Your task to perform on an android device: View the shopping cart on costco.com. Add "alienware aurora" to the cart on costco.com, then select checkout. Image 0: 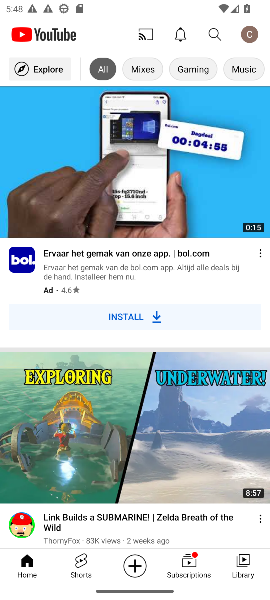
Step 0: press home button
Your task to perform on an android device: View the shopping cart on costco.com. Add "alienware aurora" to the cart on costco.com, then select checkout. Image 1: 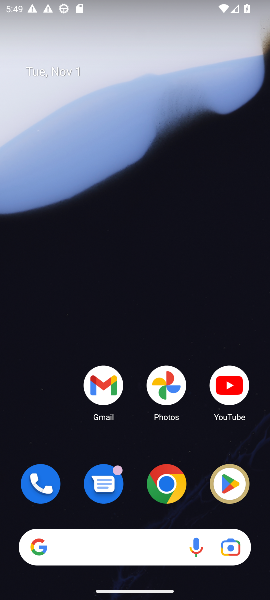
Step 1: click (163, 477)
Your task to perform on an android device: View the shopping cart on costco.com. Add "alienware aurora" to the cart on costco.com, then select checkout. Image 2: 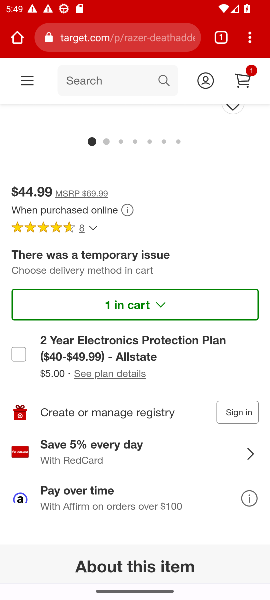
Step 2: click (130, 35)
Your task to perform on an android device: View the shopping cart on costco.com. Add "alienware aurora" to the cart on costco.com, then select checkout. Image 3: 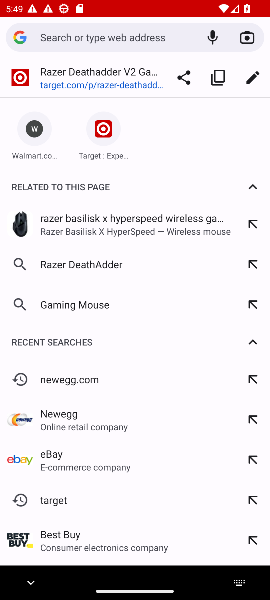
Step 3: type "costco.com"
Your task to perform on an android device: View the shopping cart on costco.com. Add "alienware aurora" to the cart on costco.com, then select checkout. Image 4: 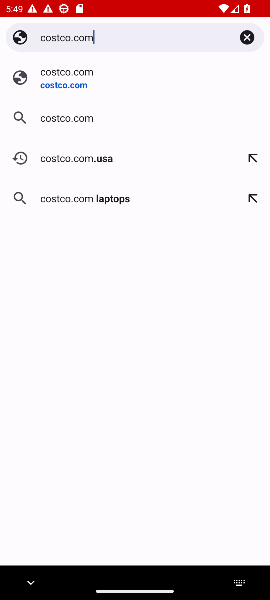
Step 4: click (63, 75)
Your task to perform on an android device: View the shopping cart on costco.com. Add "alienware aurora" to the cart on costco.com, then select checkout. Image 5: 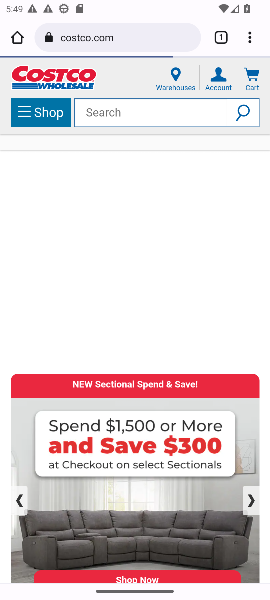
Step 5: click (164, 109)
Your task to perform on an android device: View the shopping cart on costco.com. Add "alienware aurora" to the cart on costco.com, then select checkout. Image 6: 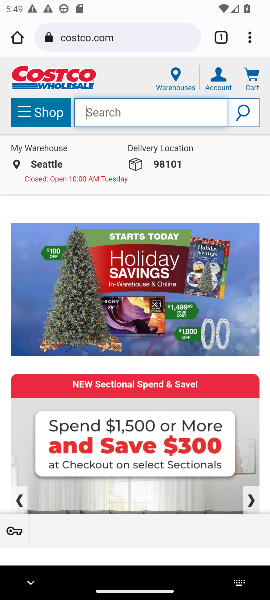
Step 6: type "alienware aurora"
Your task to perform on an android device: View the shopping cart on costco.com. Add "alienware aurora" to the cart on costco.com, then select checkout. Image 7: 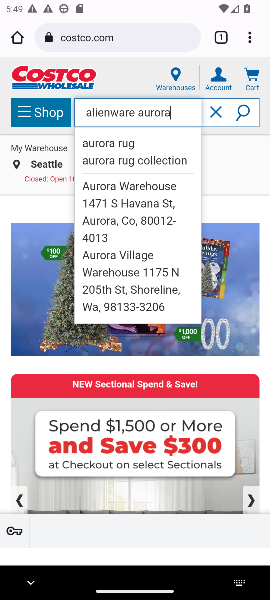
Step 7: click (248, 111)
Your task to perform on an android device: View the shopping cart on costco.com. Add "alienware aurora" to the cart on costco.com, then select checkout. Image 8: 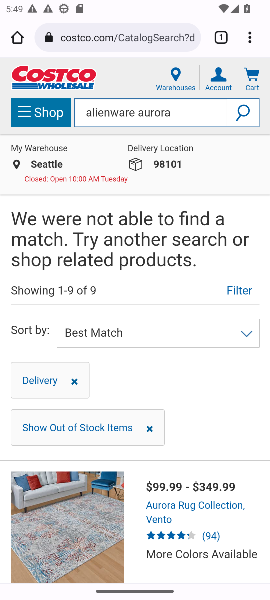
Step 8: drag from (99, 514) to (88, 348)
Your task to perform on an android device: View the shopping cart on costco.com. Add "alienware aurora" to the cart on costco.com, then select checkout. Image 9: 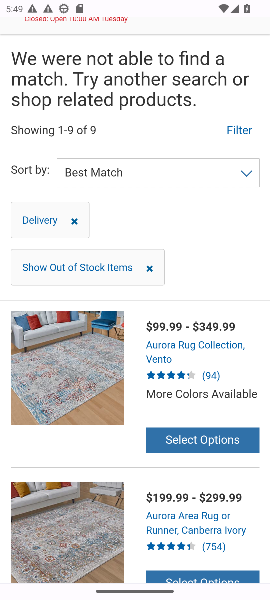
Step 9: click (98, 337)
Your task to perform on an android device: View the shopping cart on costco.com. Add "alienware aurora" to the cart on costco.com, then select checkout. Image 10: 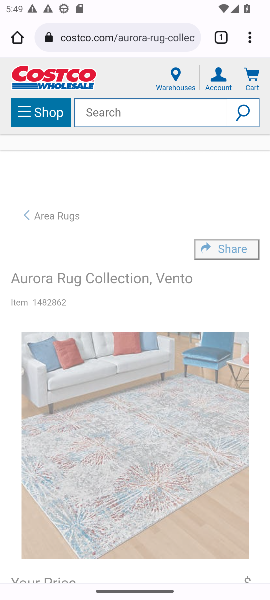
Step 10: drag from (147, 485) to (163, 186)
Your task to perform on an android device: View the shopping cart on costco.com. Add "alienware aurora" to the cart on costco.com, then select checkout. Image 11: 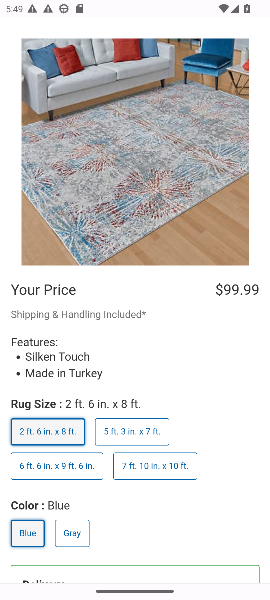
Step 11: drag from (153, 454) to (163, 174)
Your task to perform on an android device: View the shopping cart on costco.com. Add "alienware aurora" to the cart on costco.com, then select checkout. Image 12: 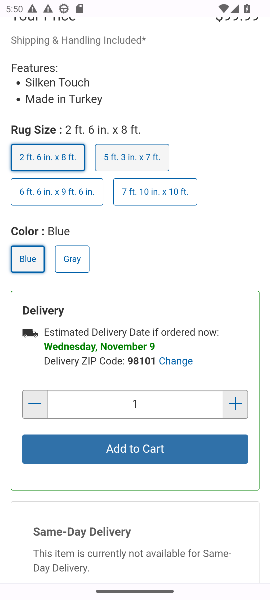
Step 12: click (159, 452)
Your task to perform on an android device: View the shopping cart on costco.com. Add "alienware aurora" to the cart on costco.com, then select checkout. Image 13: 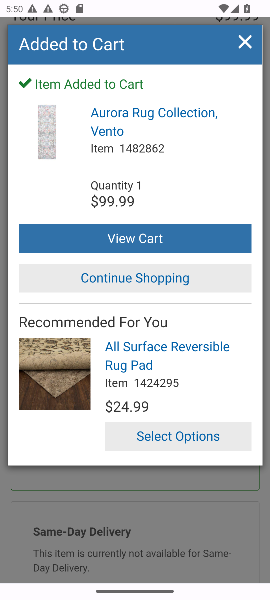
Step 13: task complete